Your task to perform on an android device: set the timer Image 0: 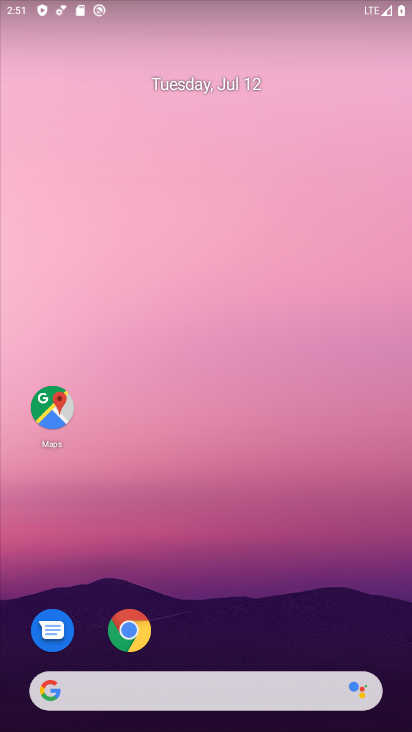
Step 0: drag from (233, 634) to (276, 0)
Your task to perform on an android device: set the timer Image 1: 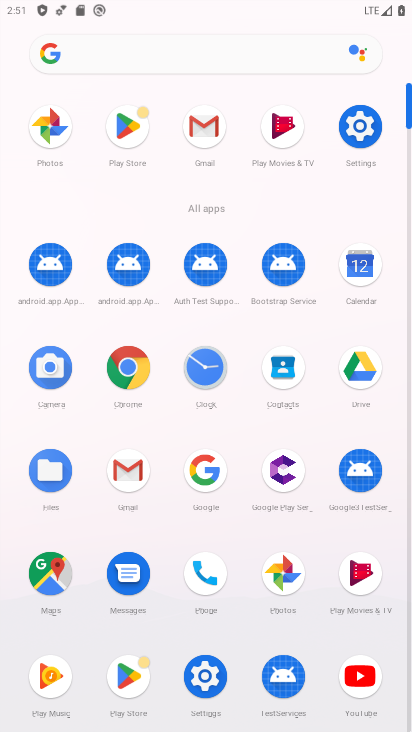
Step 1: click (214, 364)
Your task to perform on an android device: set the timer Image 2: 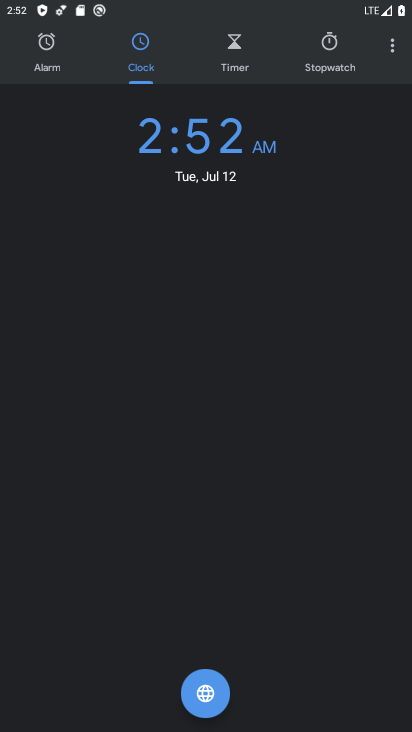
Step 2: click (242, 49)
Your task to perform on an android device: set the timer Image 3: 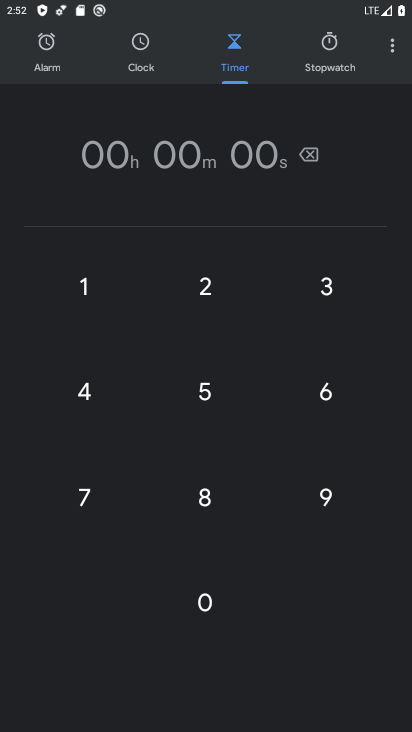
Step 3: click (96, 396)
Your task to perform on an android device: set the timer Image 4: 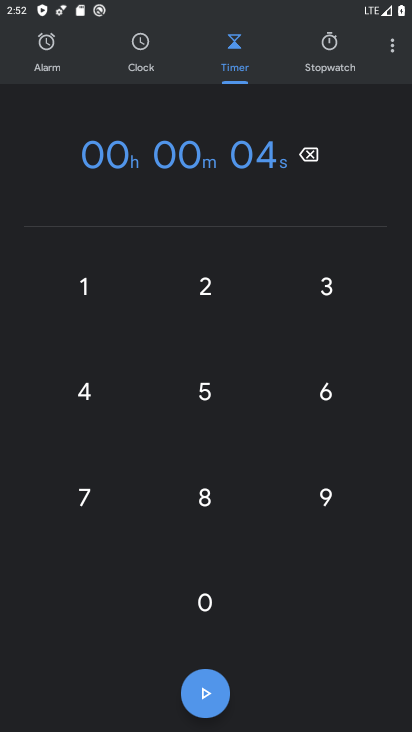
Step 4: click (215, 393)
Your task to perform on an android device: set the timer Image 5: 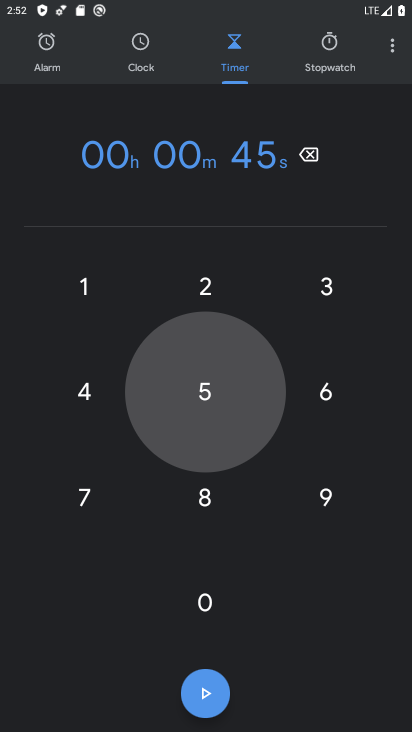
Step 5: click (338, 280)
Your task to perform on an android device: set the timer Image 6: 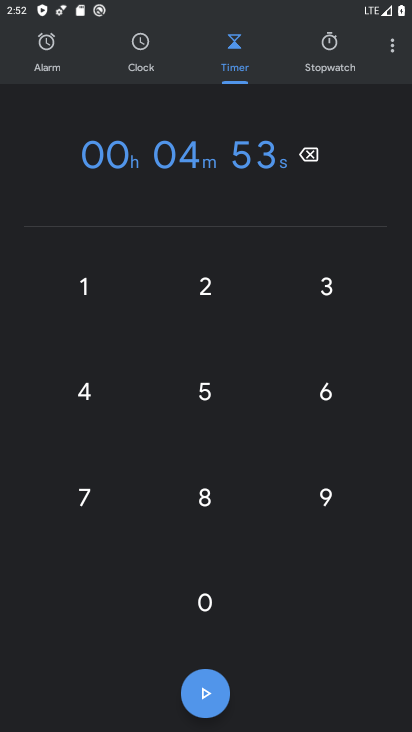
Step 6: click (197, 691)
Your task to perform on an android device: set the timer Image 7: 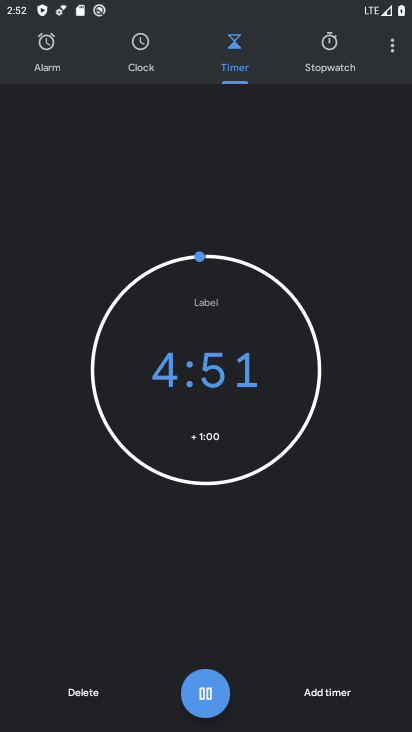
Step 7: task complete